Your task to perform on an android device: Open Google Maps Image 0: 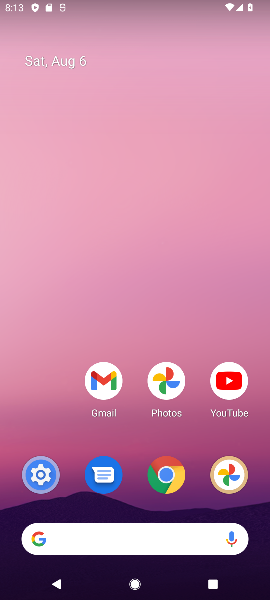
Step 0: click (136, 448)
Your task to perform on an android device: Open Google Maps Image 1: 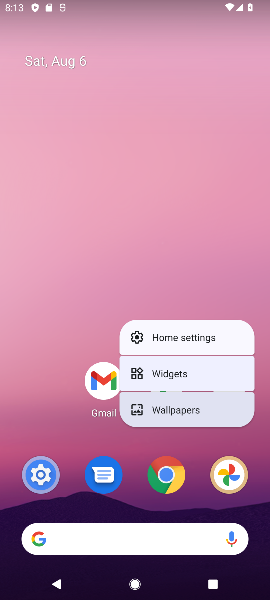
Step 1: click (60, 259)
Your task to perform on an android device: Open Google Maps Image 2: 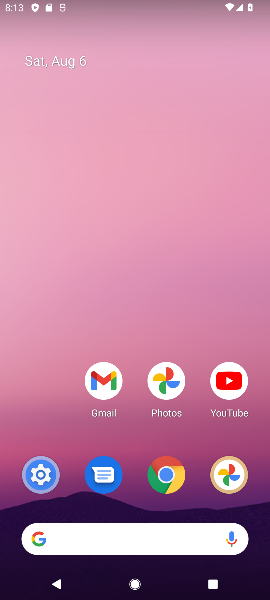
Step 2: drag from (135, 434) to (158, 277)
Your task to perform on an android device: Open Google Maps Image 3: 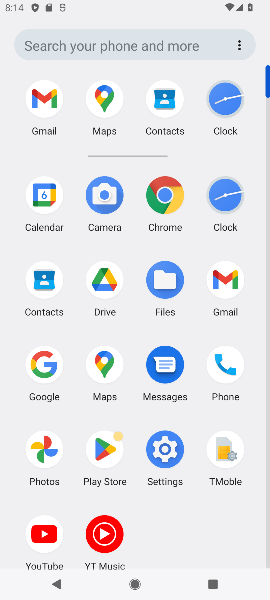
Step 3: click (108, 104)
Your task to perform on an android device: Open Google Maps Image 4: 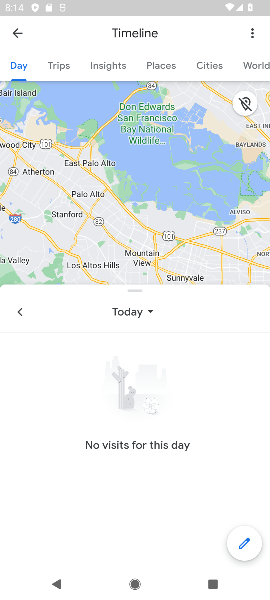
Step 4: task complete